Your task to perform on an android device: turn pop-ups on in chrome Image 0: 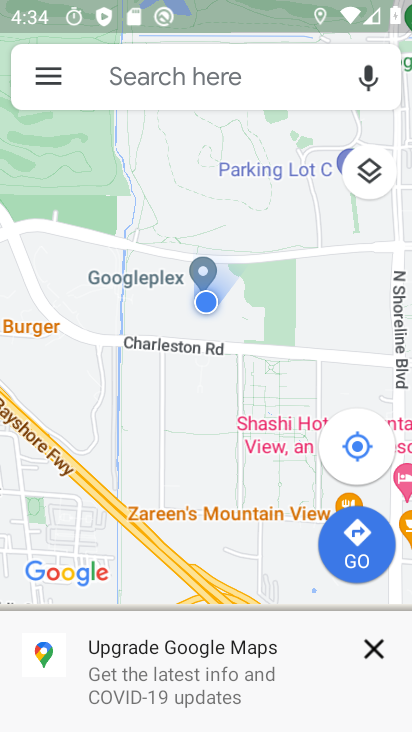
Step 0: press back button
Your task to perform on an android device: turn pop-ups on in chrome Image 1: 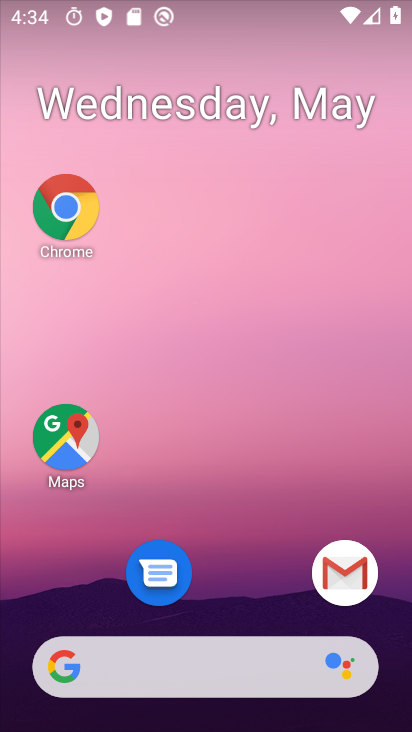
Step 1: drag from (273, 618) to (142, 65)
Your task to perform on an android device: turn pop-ups on in chrome Image 2: 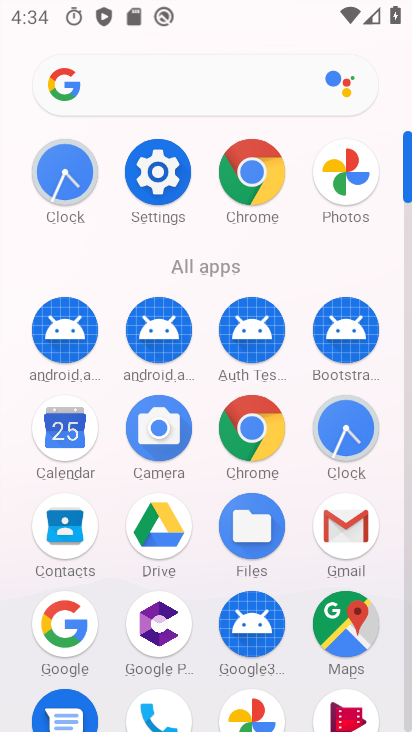
Step 2: click (237, 162)
Your task to perform on an android device: turn pop-ups on in chrome Image 3: 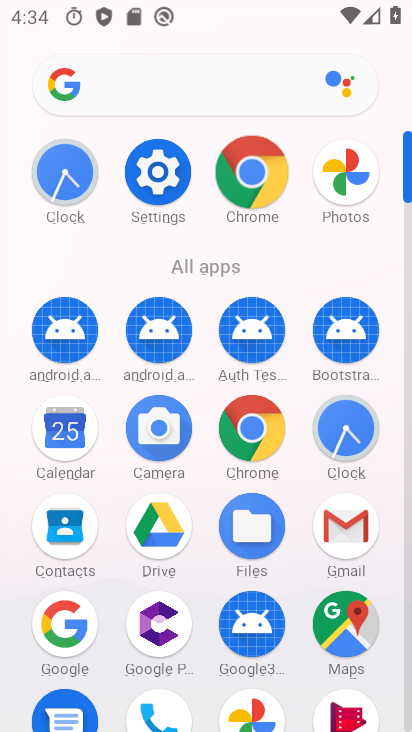
Step 3: click (238, 162)
Your task to perform on an android device: turn pop-ups on in chrome Image 4: 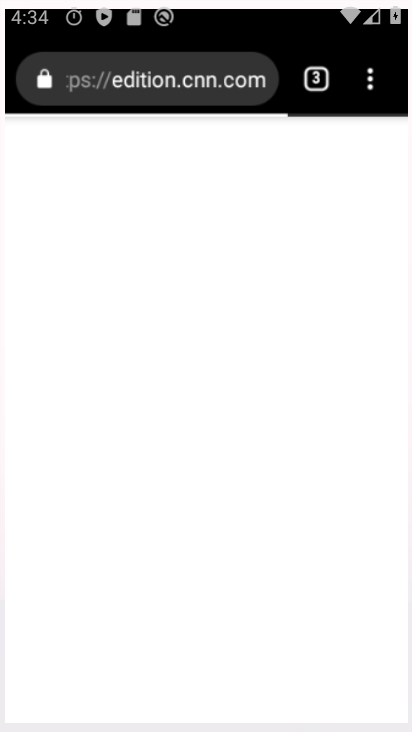
Step 4: click (242, 161)
Your task to perform on an android device: turn pop-ups on in chrome Image 5: 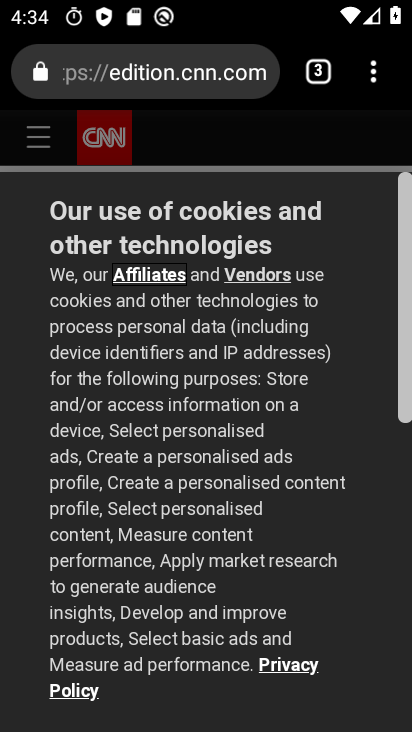
Step 5: drag from (372, 78) to (116, 558)
Your task to perform on an android device: turn pop-ups on in chrome Image 6: 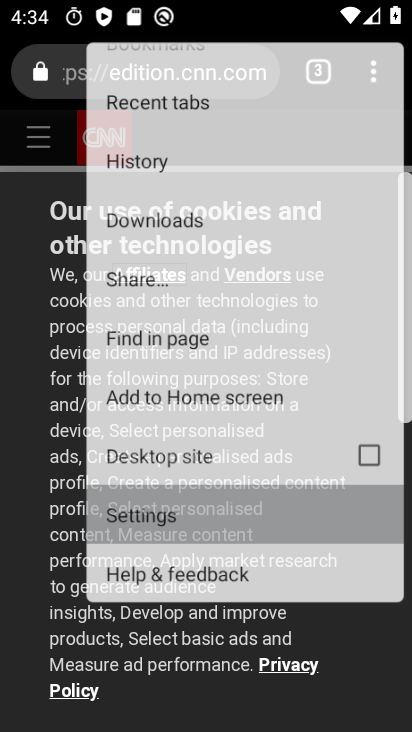
Step 6: click (71, 558)
Your task to perform on an android device: turn pop-ups on in chrome Image 7: 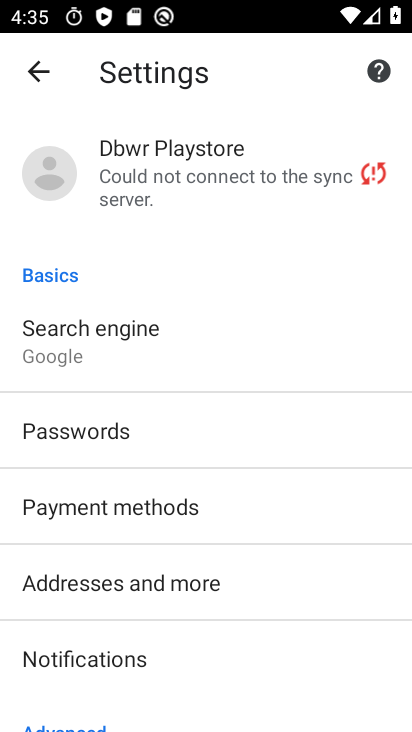
Step 7: drag from (139, 610) to (55, 70)
Your task to perform on an android device: turn pop-ups on in chrome Image 8: 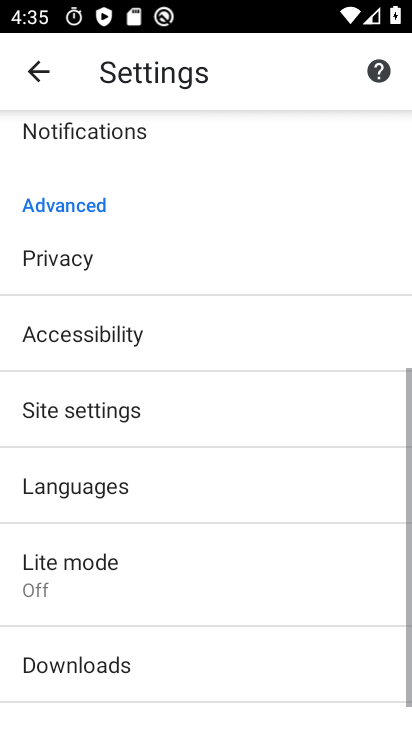
Step 8: drag from (110, 456) to (73, 299)
Your task to perform on an android device: turn pop-ups on in chrome Image 9: 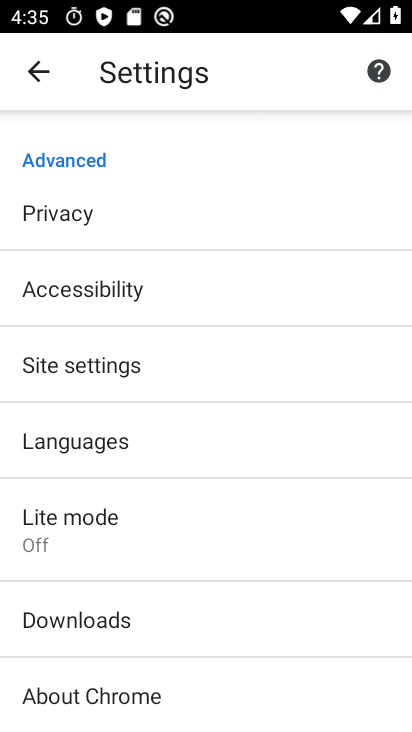
Step 9: click (49, 372)
Your task to perform on an android device: turn pop-ups on in chrome Image 10: 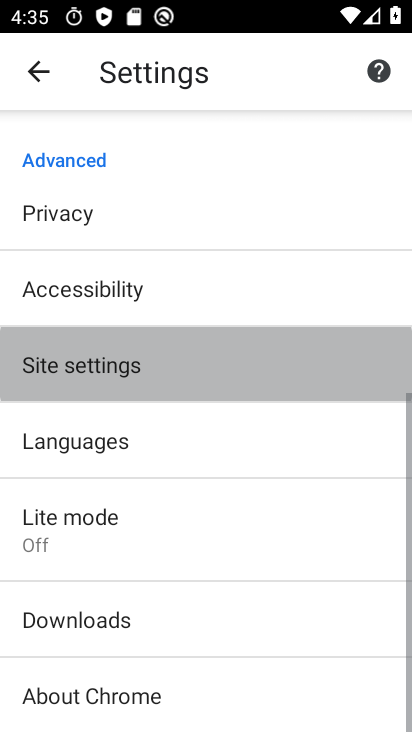
Step 10: click (64, 355)
Your task to perform on an android device: turn pop-ups on in chrome Image 11: 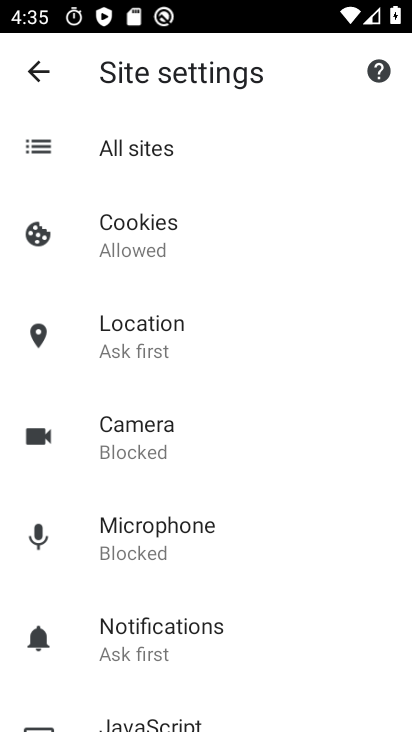
Step 11: drag from (153, 503) to (174, 189)
Your task to perform on an android device: turn pop-ups on in chrome Image 12: 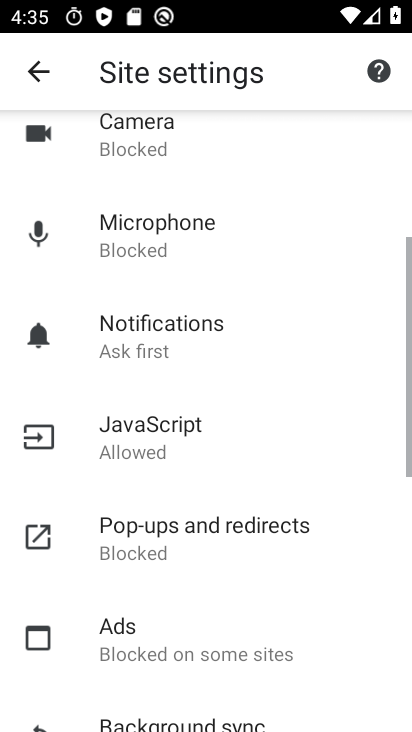
Step 12: drag from (129, 381) to (229, 16)
Your task to perform on an android device: turn pop-ups on in chrome Image 13: 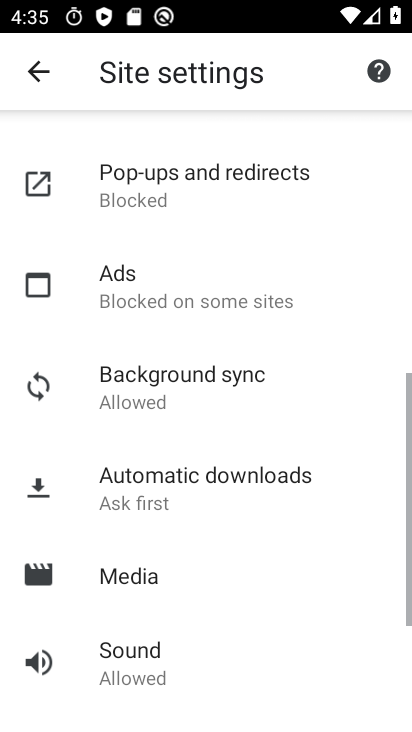
Step 13: drag from (158, 377) to (158, 177)
Your task to perform on an android device: turn pop-ups on in chrome Image 14: 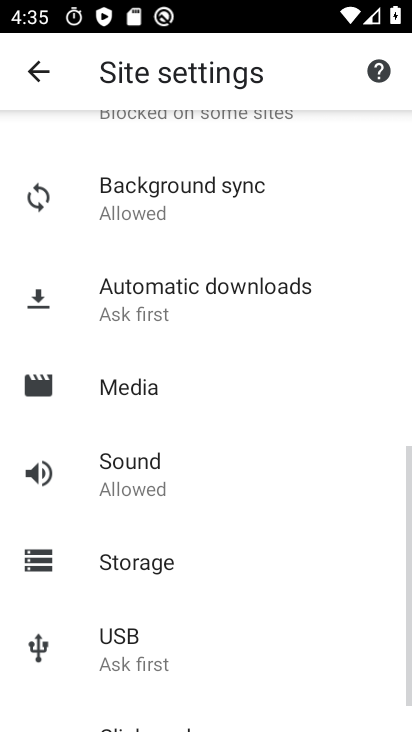
Step 14: drag from (146, 406) to (144, 230)
Your task to perform on an android device: turn pop-ups on in chrome Image 15: 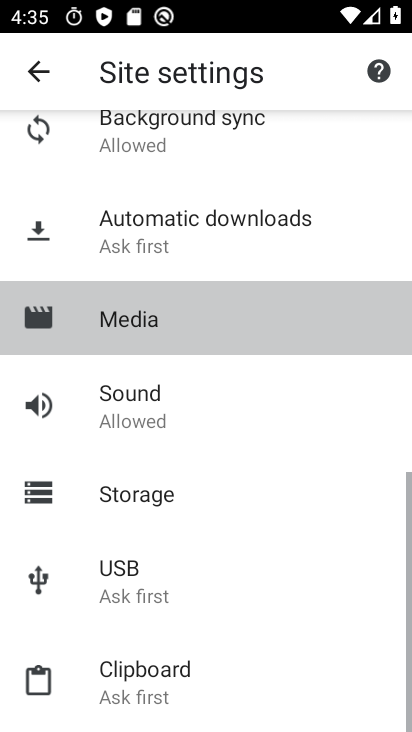
Step 15: drag from (141, 216) to (143, 533)
Your task to perform on an android device: turn pop-ups on in chrome Image 16: 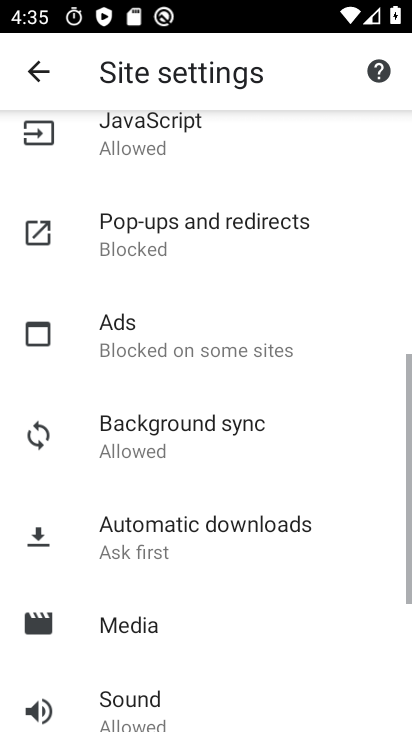
Step 16: drag from (140, 338) to (135, 478)
Your task to perform on an android device: turn pop-ups on in chrome Image 17: 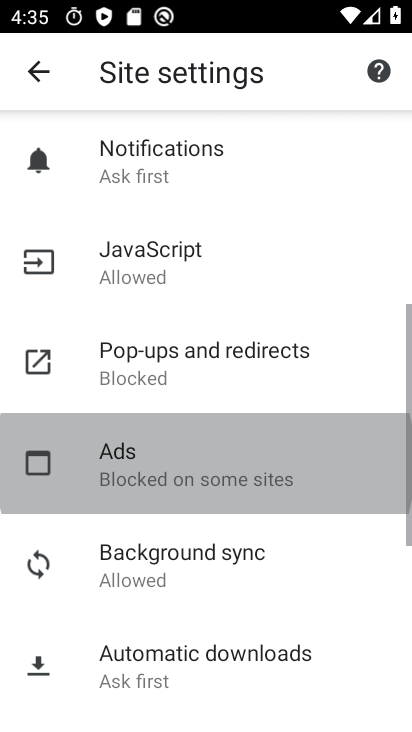
Step 17: drag from (100, 336) to (100, 514)
Your task to perform on an android device: turn pop-ups on in chrome Image 18: 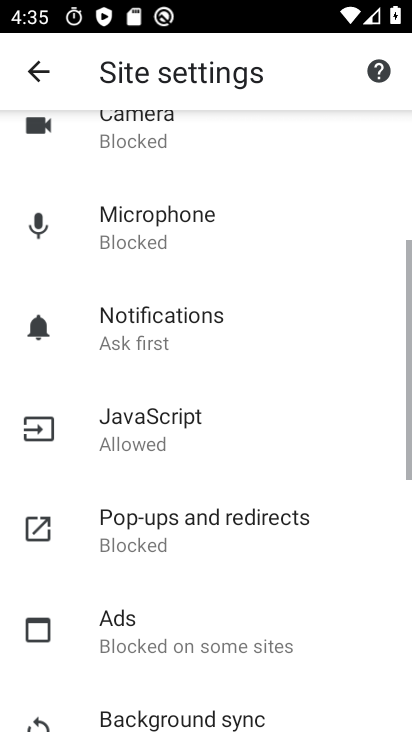
Step 18: drag from (103, 299) to (103, 529)
Your task to perform on an android device: turn pop-ups on in chrome Image 19: 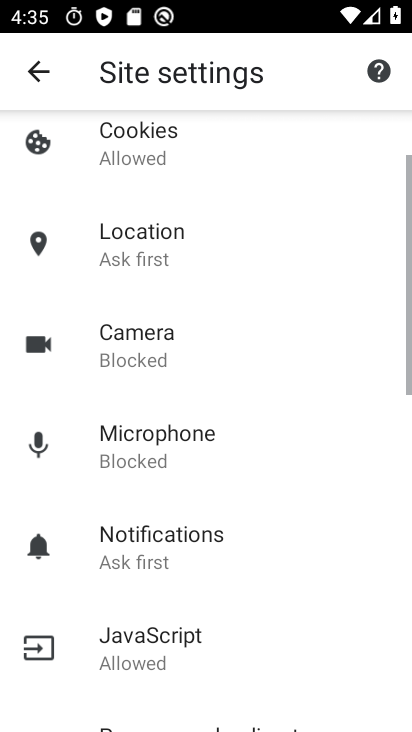
Step 19: drag from (100, 349) to (96, 522)
Your task to perform on an android device: turn pop-ups on in chrome Image 20: 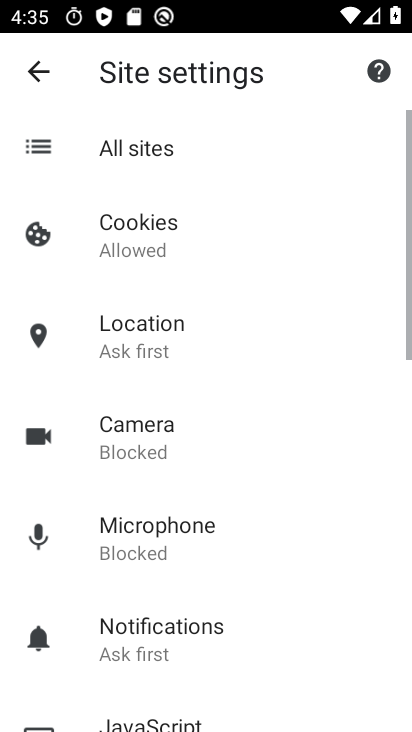
Step 20: drag from (97, 319) to (97, 500)
Your task to perform on an android device: turn pop-ups on in chrome Image 21: 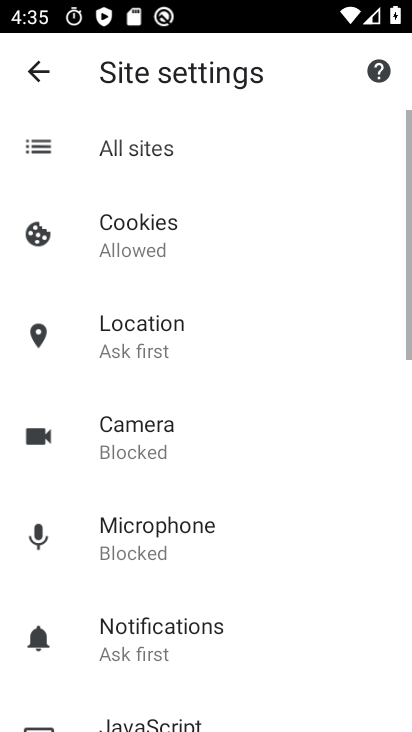
Step 21: drag from (92, 345) to (122, 528)
Your task to perform on an android device: turn pop-ups on in chrome Image 22: 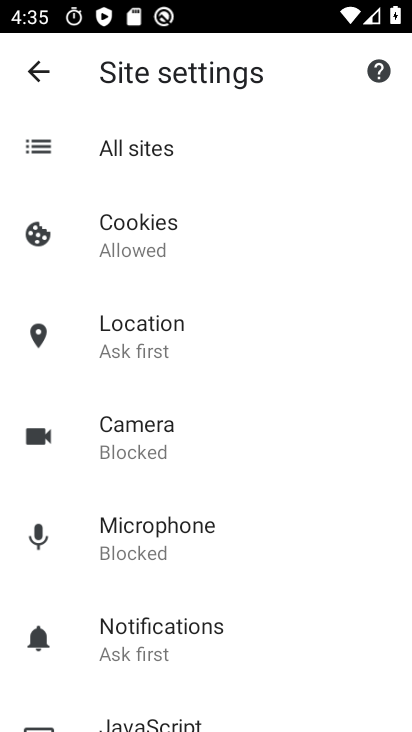
Step 22: drag from (166, 501) to (103, 241)
Your task to perform on an android device: turn pop-ups on in chrome Image 23: 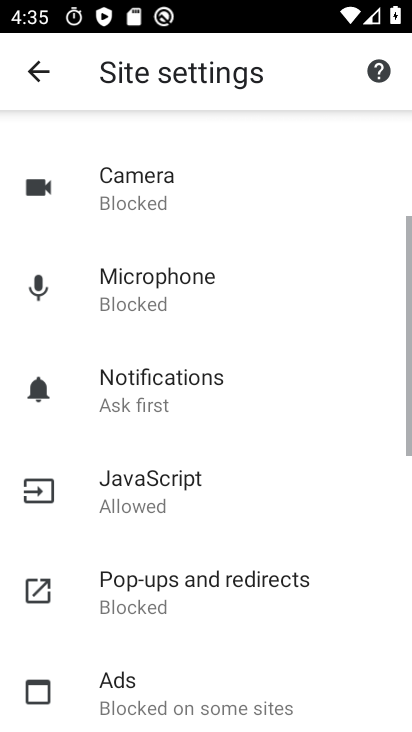
Step 23: drag from (109, 429) to (78, 193)
Your task to perform on an android device: turn pop-ups on in chrome Image 24: 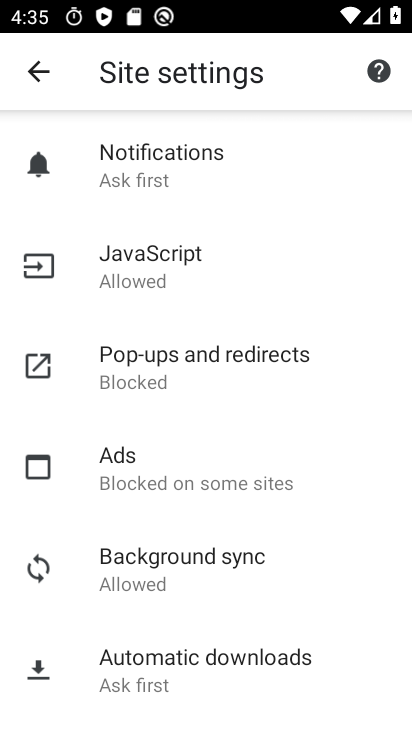
Step 24: click (124, 366)
Your task to perform on an android device: turn pop-ups on in chrome Image 25: 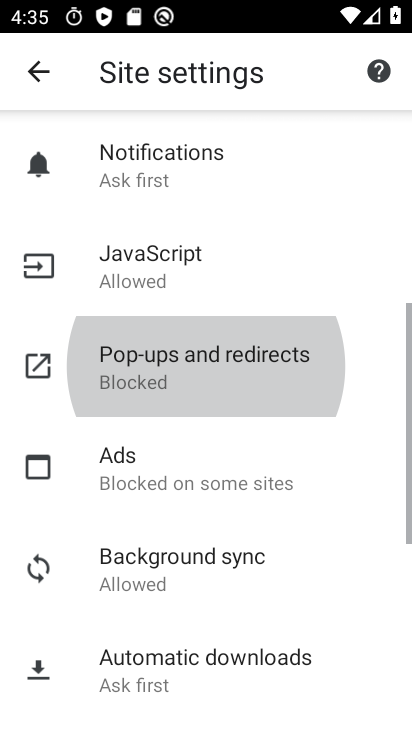
Step 25: click (124, 366)
Your task to perform on an android device: turn pop-ups on in chrome Image 26: 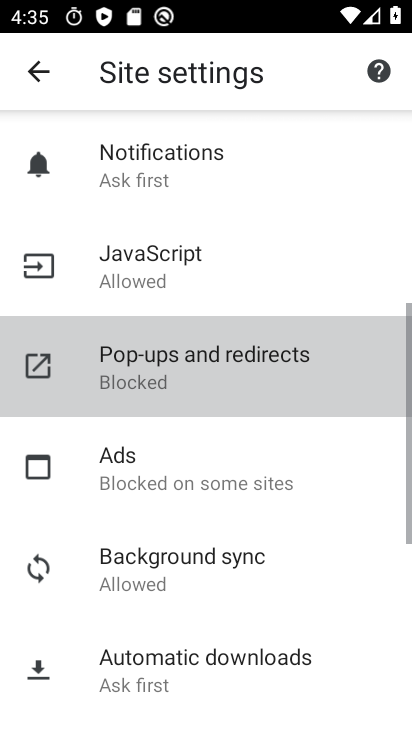
Step 26: click (124, 366)
Your task to perform on an android device: turn pop-ups on in chrome Image 27: 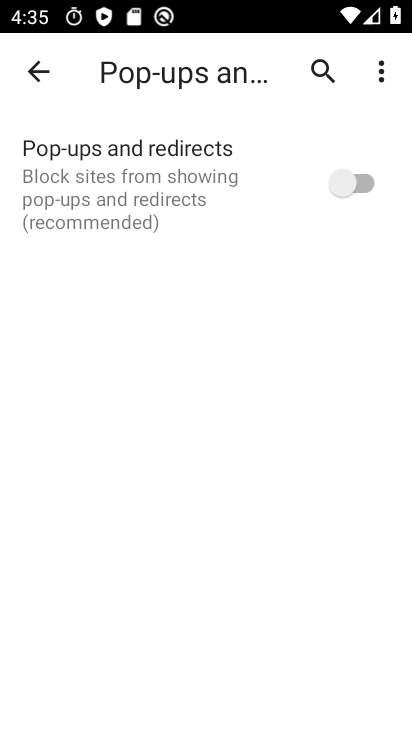
Step 27: click (351, 177)
Your task to perform on an android device: turn pop-ups on in chrome Image 28: 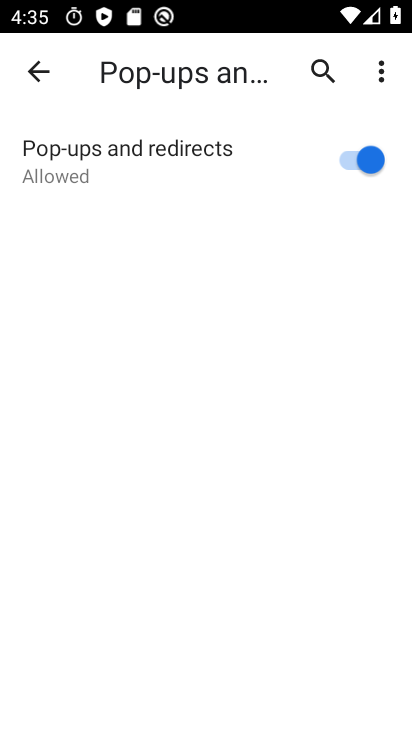
Step 28: task complete